Your task to perform on an android device: toggle data saver in the chrome app Image 0: 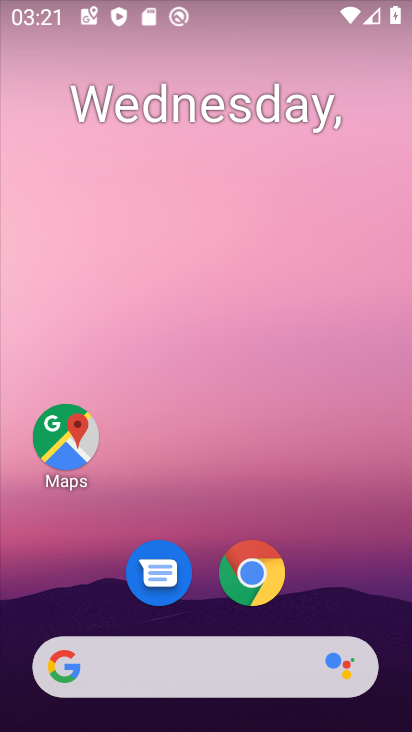
Step 0: click (251, 570)
Your task to perform on an android device: toggle data saver in the chrome app Image 1: 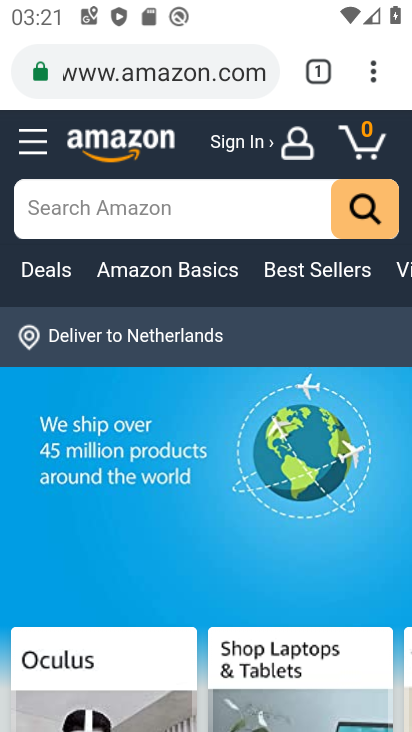
Step 1: click (375, 66)
Your task to perform on an android device: toggle data saver in the chrome app Image 2: 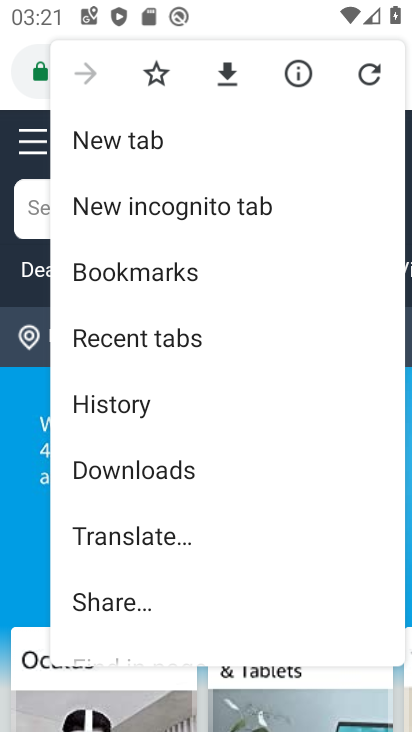
Step 2: drag from (180, 608) to (253, 368)
Your task to perform on an android device: toggle data saver in the chrome app Image 3: 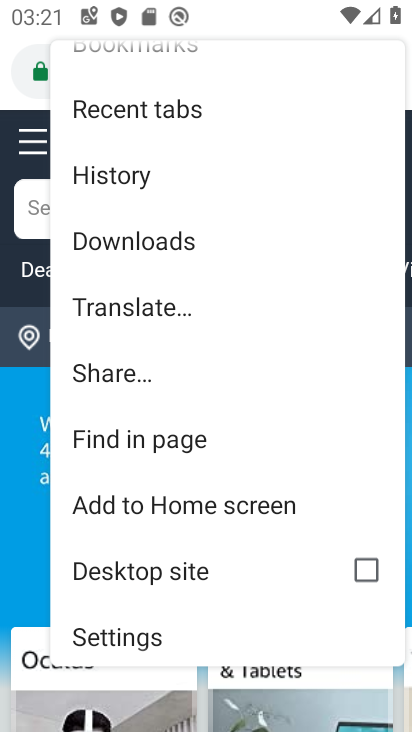
Step 3: drag from (184, 526) to (251, 410)
Your task to perform on an android device: toggle data saver in the chrome app Image 4: 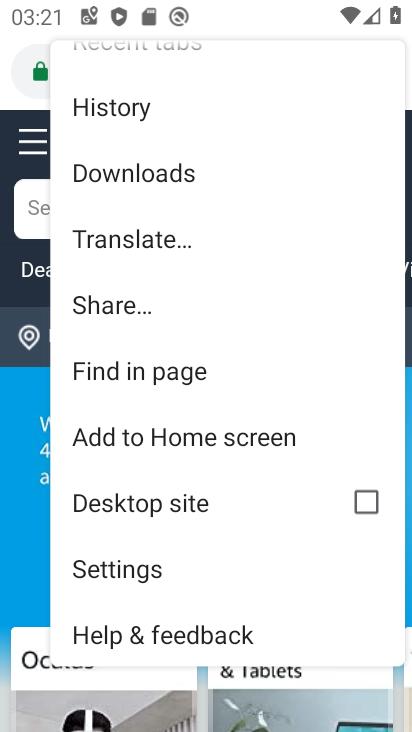
Step 4: click (119, 570)
Your task to perform on an android device: toggle data saver in the chrome app Image 5: 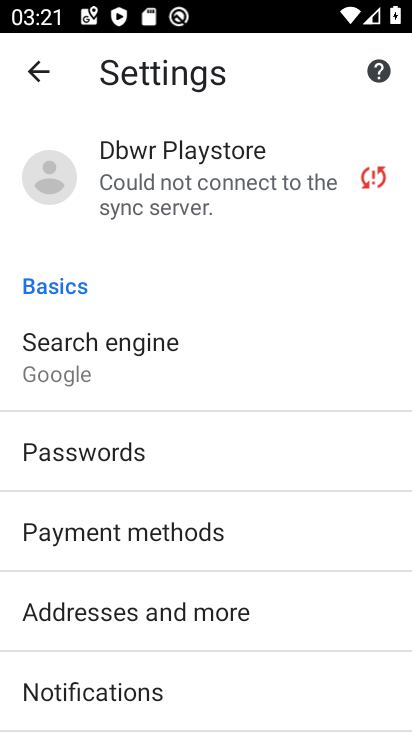
Step 5: drag from (228, 576) to (225, 378)
Your task to perform on an android device: toggle data saver in the chrome app Image 6: 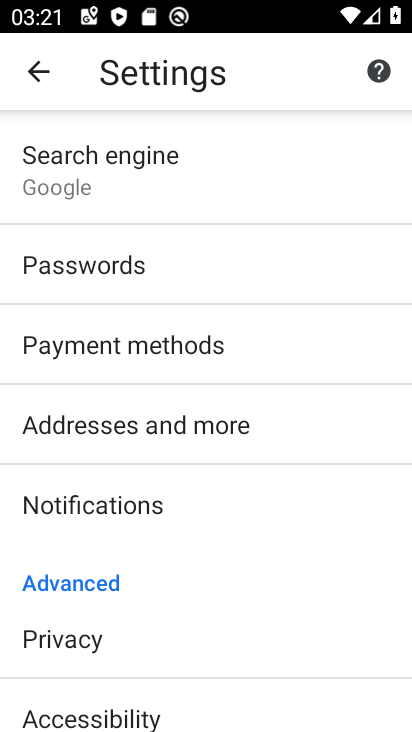
Step 6: drag from (178, 575) to (210, 388)
Your task to perform on an android device: toggle data saver in the chrome app Image 7: 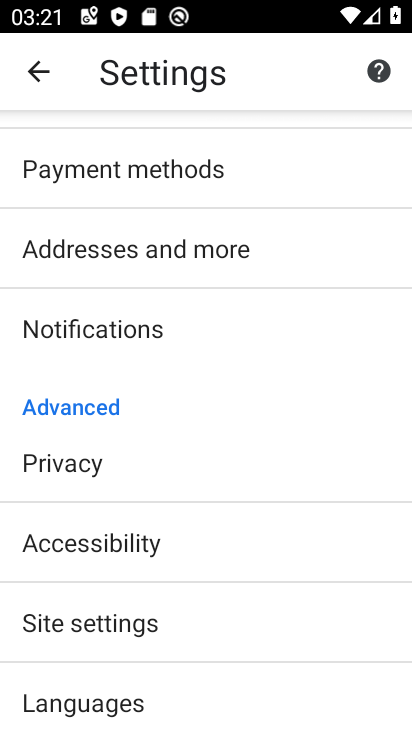
Step 7: drag from (161, 607) to (207, 471)
Your task to perform on an android device: toggle data saver in the chrome app Image 8: 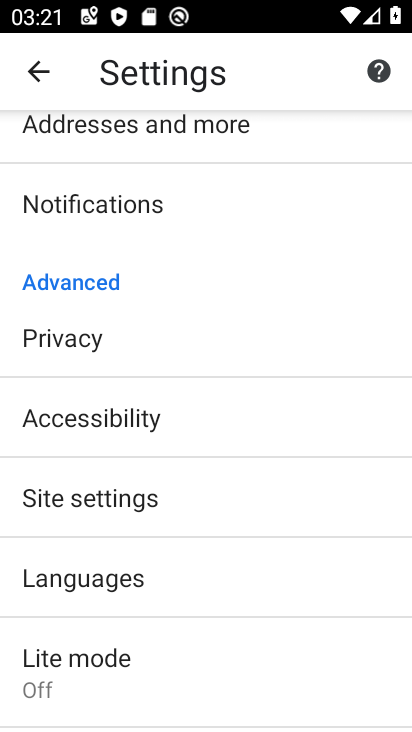
Step 8: click (102, 657)
Your task to perform on an android device: toggle data saver in the chrome app Image 9: 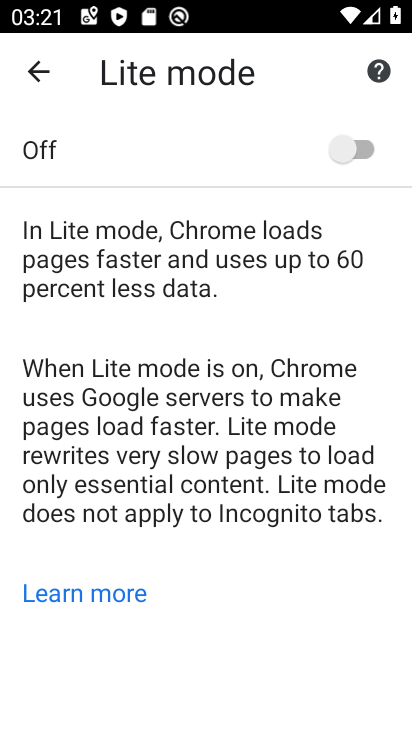
Step 9: click (349, 149)
Your task to perform on an android device: toggle data saver in the chrome app Image 10: 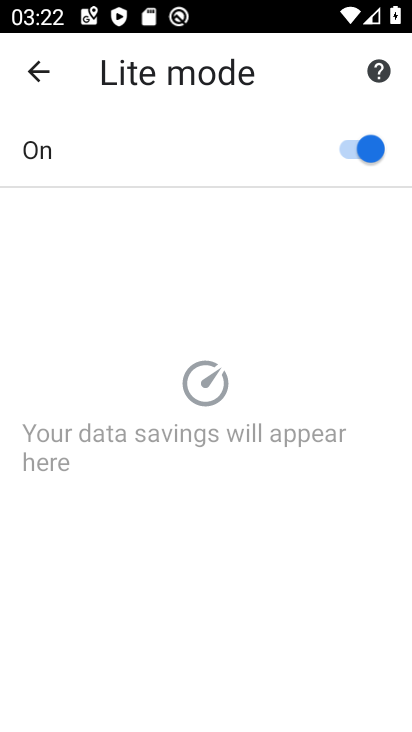
Step 10: task complete